Your task to perform on an android device: Go to internet settings Image 0: 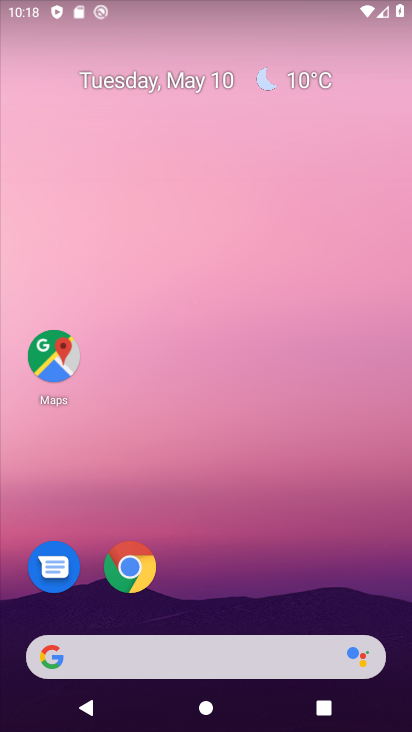
Step 0: drag from (376, 619) to (322, 1)
Your task to perform on an android device: Go to internet settings Image 1: 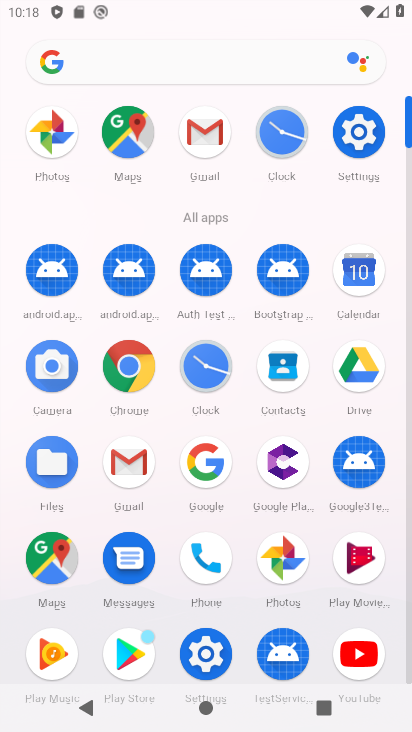
Step 1: click (360, 132)
Your task to perform on an android device: Go to internet settings Image 2: 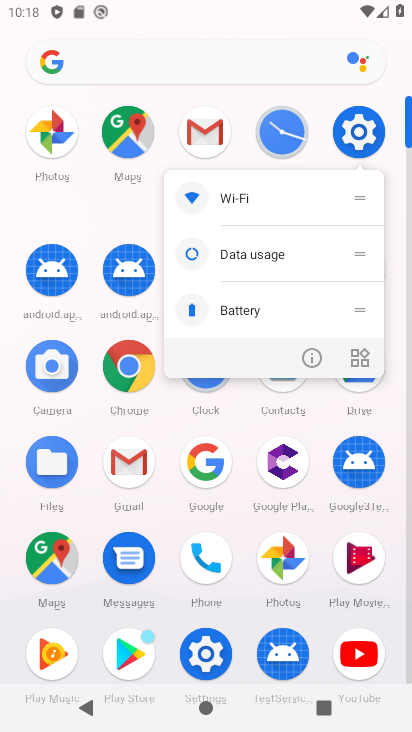
Step 2: click (360, 132)
Your task to perform on an android device: Go to internet settings Image 3: 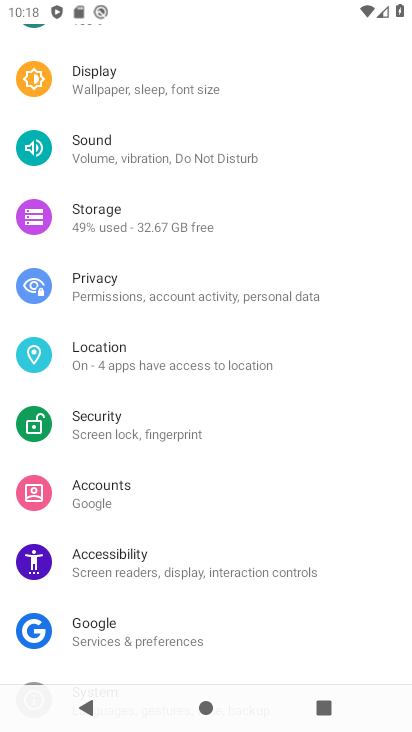
Step 3: drag from (258, 176) to (265, 473)
Your task to perform on an android device: Go to internet settings Image 4: 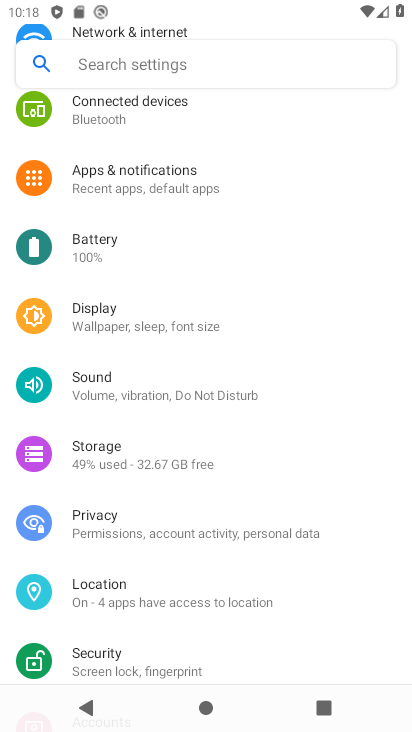
Step 4: drag from (247, 166) to (239, 499)
Your task to perform on an android device: Go to internet settings Image 5: 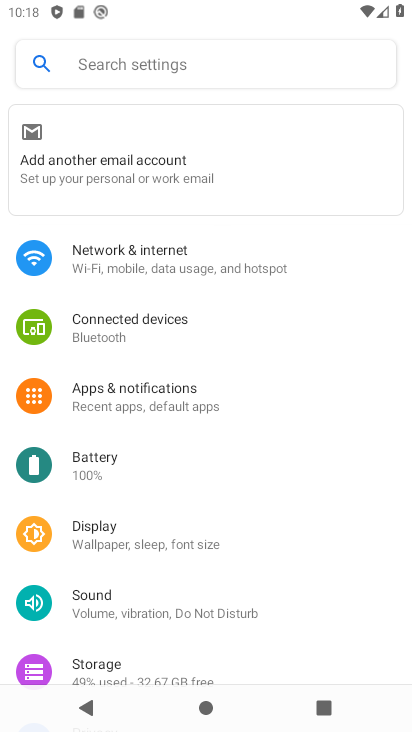
Step 5: click (158, 260)
Your task to perform on an android device: Go to internet settings Image 6: 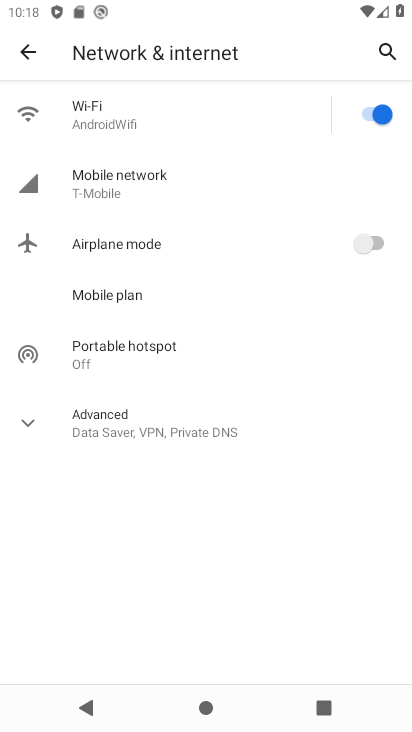
Step 6: click (36, 428)
Your task to perform on an android device: Go to internet settings Image 7: 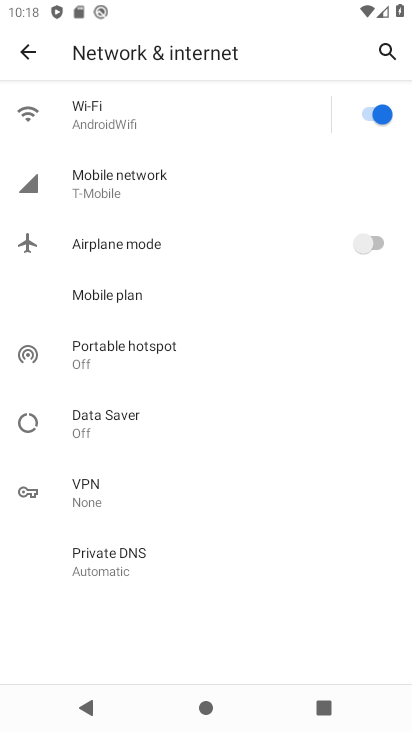
Step 7: task complete